Your task to perform on an android device: toggle pop-ups in chrome Image 0: 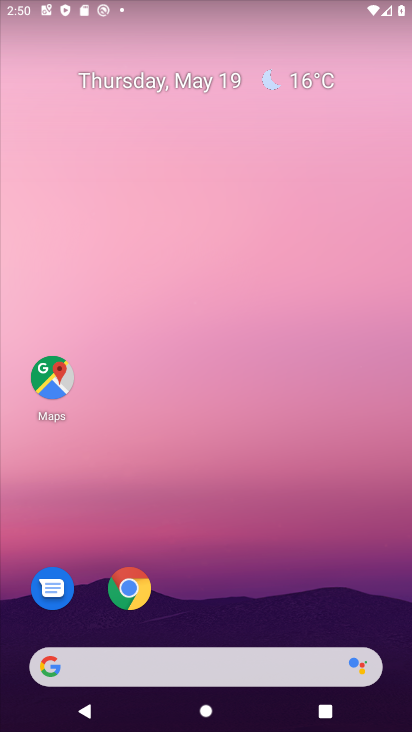
Step 0: click (128, 589)
Your task to perform on an android device: toggle pop-ups in chrome Image 1: 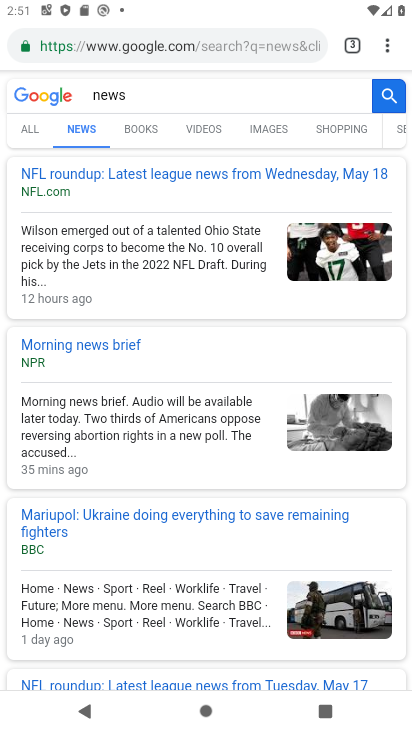
Step 1: drag from (389, 45) to (242, 498)
Your task to perform on an android device: toggle pop-ups in chrome Image 2: 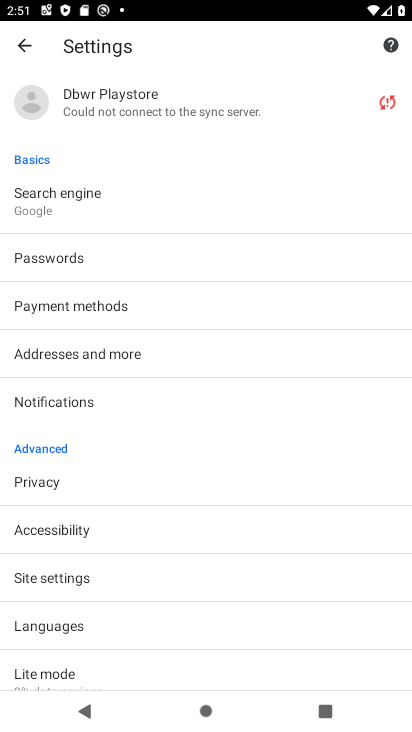
Step 2: drag from (171, 643) to (237, 217)
Your task to perform on an android device: toggle pop-ups in chrome Image 3: 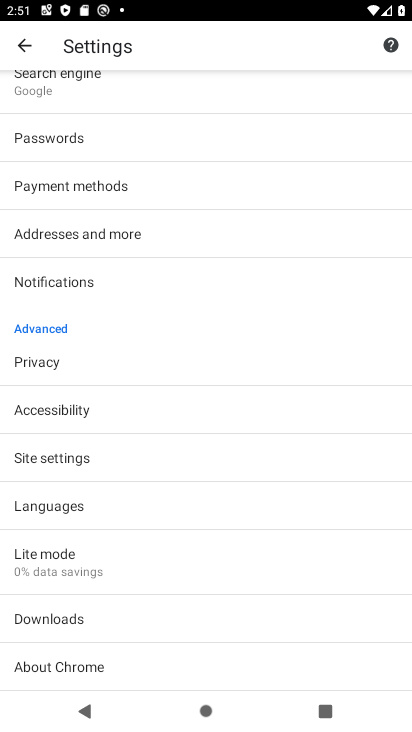
Step 3: click (83, 465)
Your task to perform on an android device: toggle pop-ups in chrome Image 4: 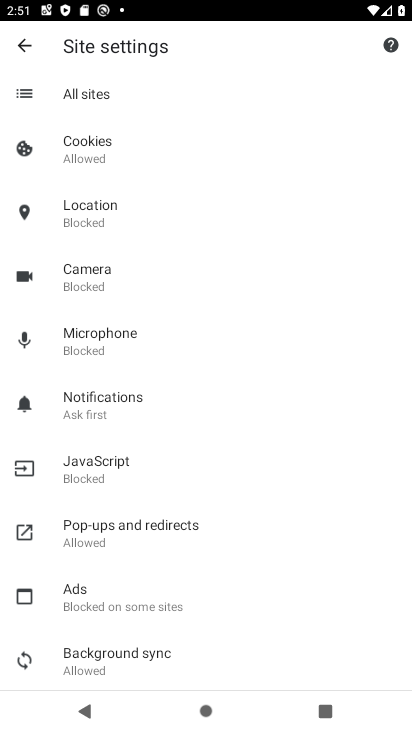
Step 4: click (105, 526)
Your task to perform on an android device: toggle pop-ups in chrome Image 5: 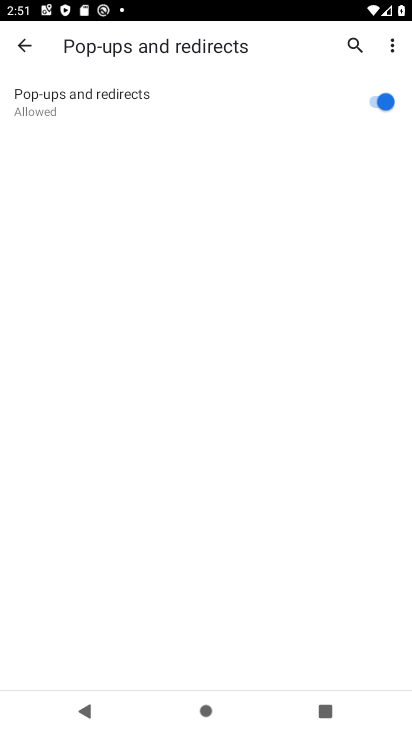
Step 5: click (368, 100)
Your task to perform on an android device: toggle pop-ups in chrome Image 6: 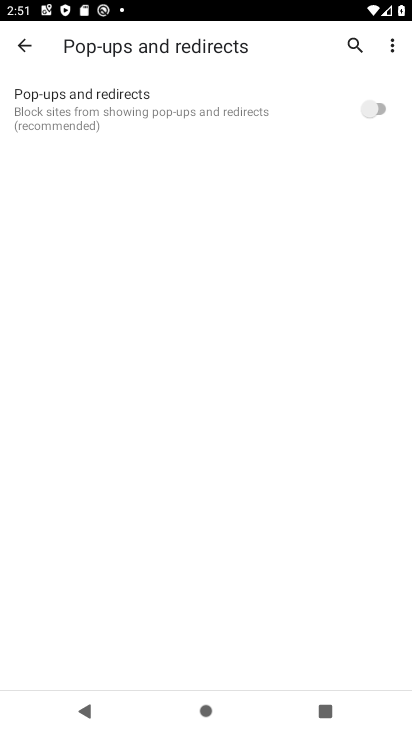
Step 6: task complete